Your task to perform on an android device: Is it going to rain today? Image 0: 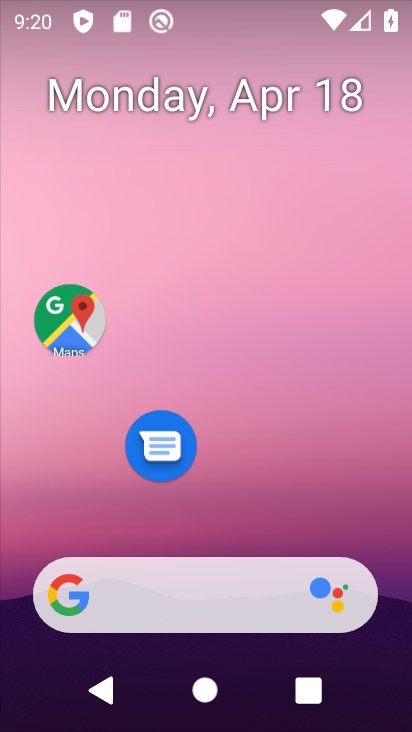
Step 0: drag from (226, 532) to (261, 0)
Your task to perform on an android device: Is it going to rain today? Image 1: 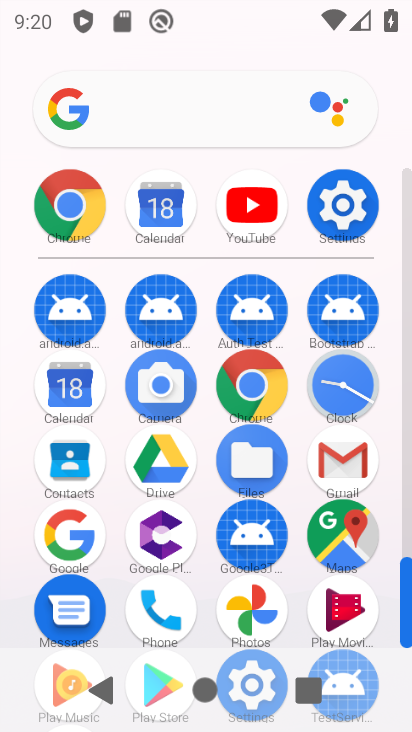
Step 1: task complete